Your task to perform on an android device: Play the last video I watched on Youtube Image 0: 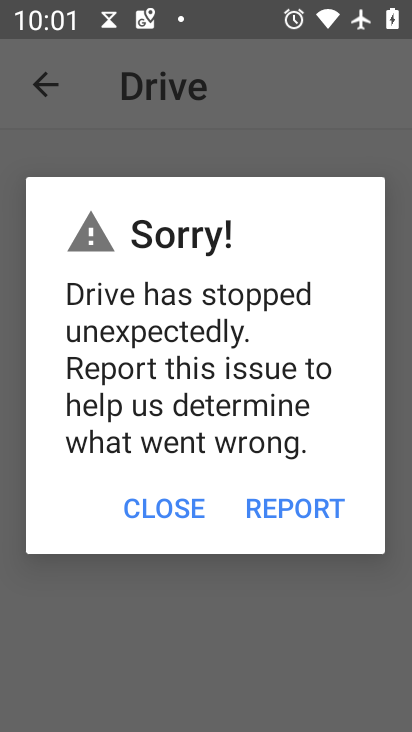
Step 0: press home button
Your task to perform on an android device: Play the last video I watched on Youtube Image 1: 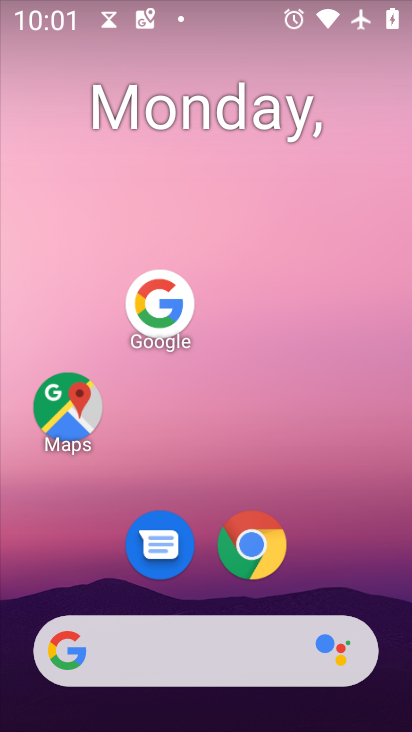
Step 1: drag from (131, 664) to (294, 138)
Your task to perform on an android device: Play the last video I watched on Youtube Image 2: 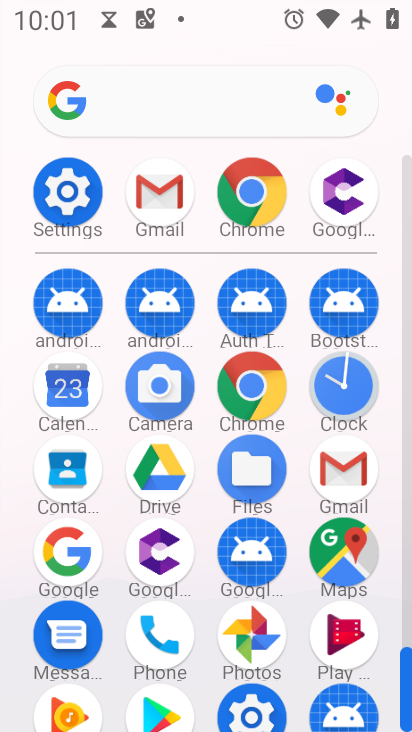
Step 2: drag from (200, 605) to (360, 97)
Your task to perform on an android device: Play the last video I watched on Youtube Image 3: 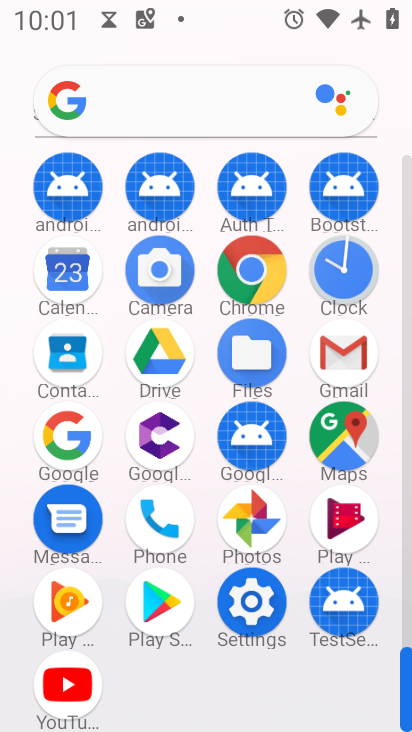
Step 3: click (76, 685)
Your task to perform on an android device: Play the last video I watched on Youtube Image 4: 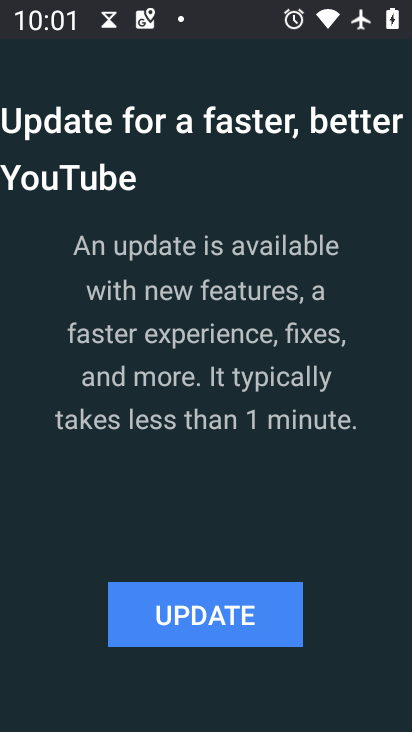
Step 4: click (214, 632)
Your task to perform on an android device: Play the last video I watched on Youtube Image 5: 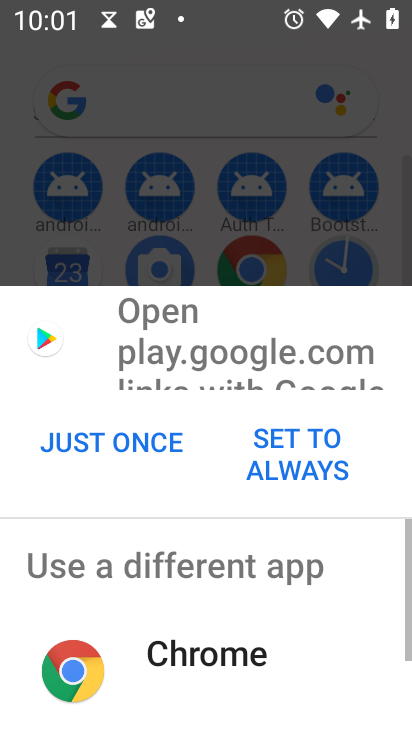
Step 5: drag from (181, 644) to (325, 306)
Your task to perform on an android device: Play the last video I watched on Youtube Image 6: 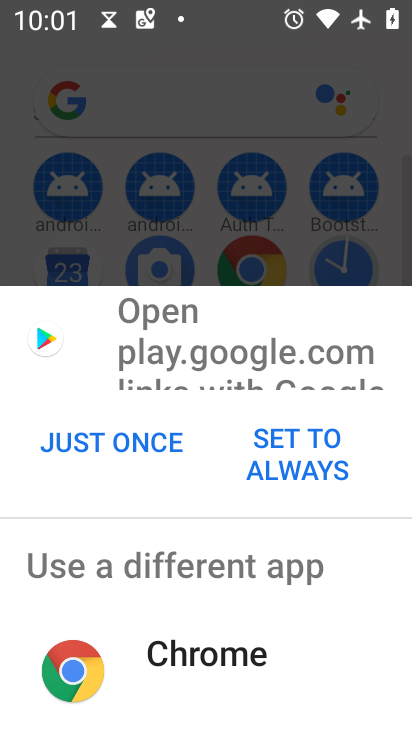
Step 6: click (149, 445)
Your task to perform on an android device: Play the last video I watched on Youtube Image 7: 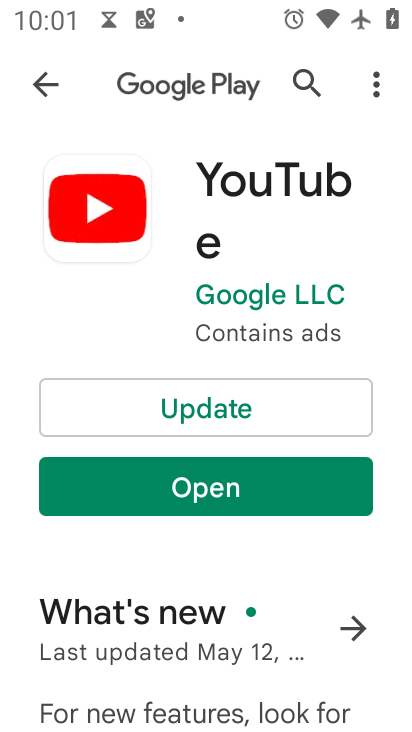
Step 7: click (232, 403)
Your task to perform on an android device: Play the last video I watched on Youtube Image 8: 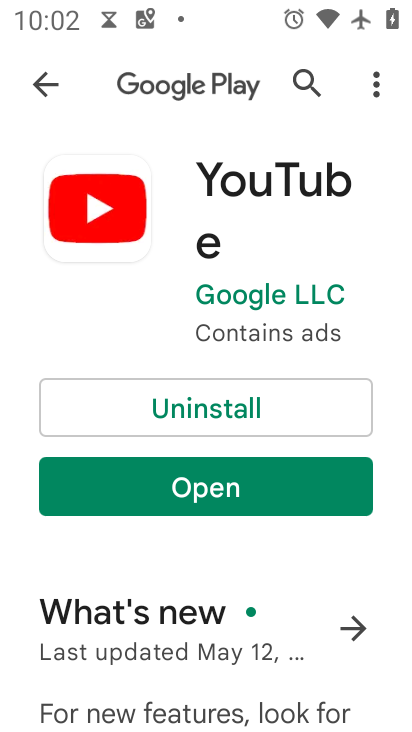
Step 8: click (222, 486)
Your task to perform on an android device: Play the last video I watched on Youtube Image 9: 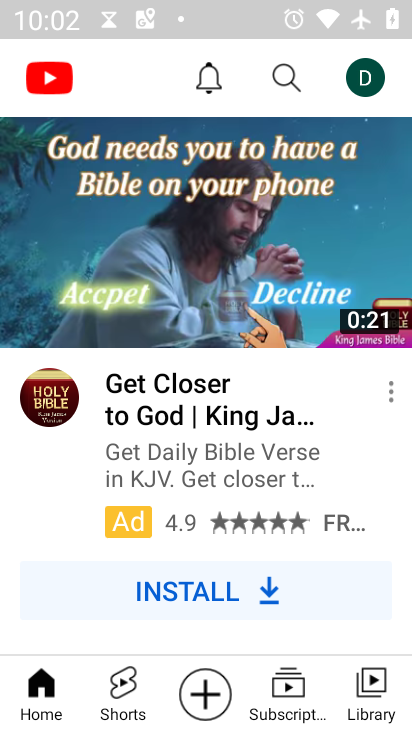
Step 9: click (367, 695)
Your task to perform on an android device: Play the last video I watched on Youtube Image 10: 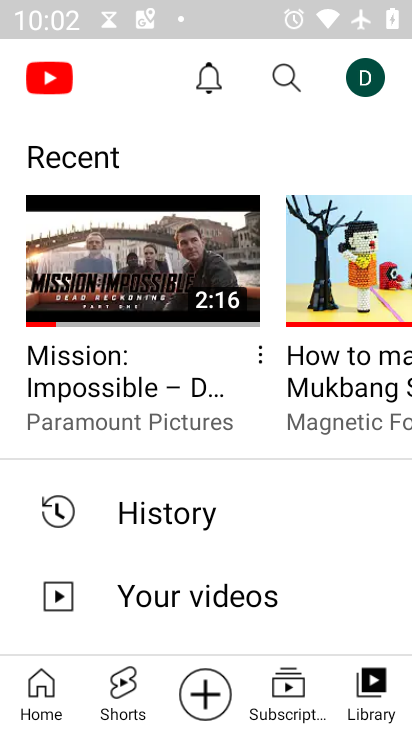
Step 10: click (138, 273)
Your task to perform on an android device: Play the last video I watched on Youtube Image 11: 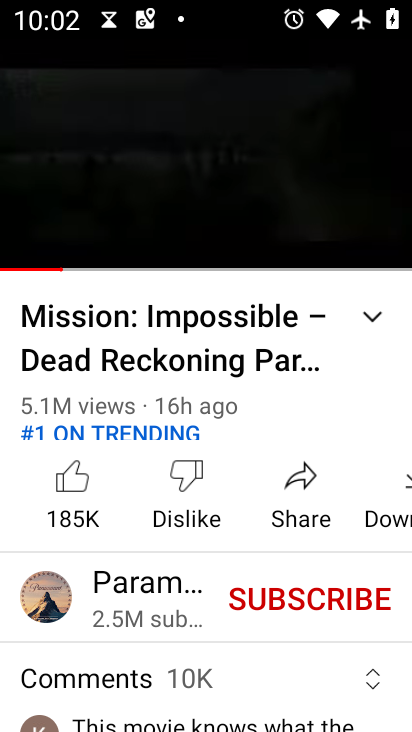
Step 11: click (218, 163)
Your task to perform on an android device: Play the last video I watched on Youtube Image 12: 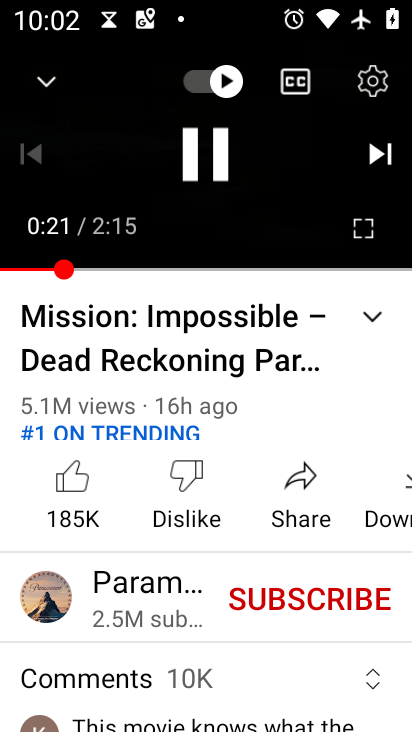
Step 12: click (212, 151)
Your task to perform on an android device: Play the last video I watched on Youtube Image 13: 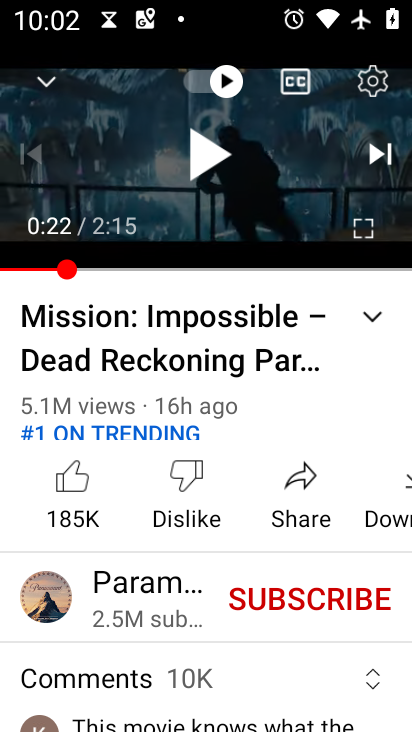
Step 13: task complete